Your task to perform on an android device: Show me popular videos on Youtube Image 0: 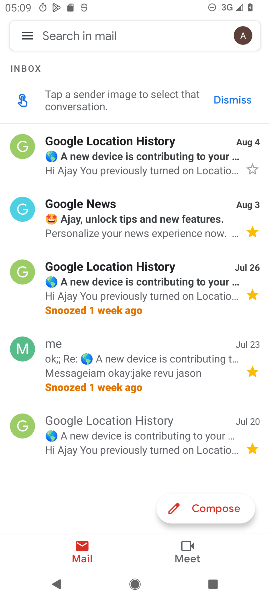
Step 0: press home button
Your task to perform on an android device: Show me popular videos on Youtube Image 1: 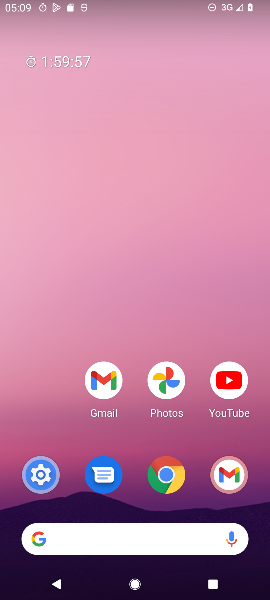
Step 1: drag from (59, 441) to (64, 253)
Your task to perform on an android device: Show me popular videos on Youtube Image 2: 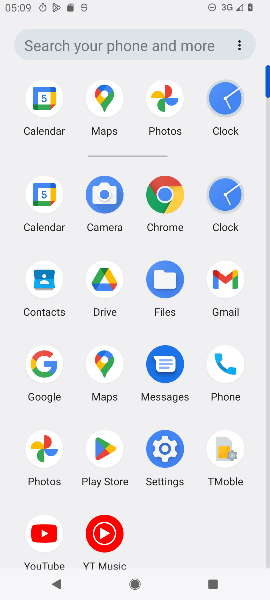
Step 2: click (41, 540)
Your task to perform on an android device: Show me popular videos on Youtube Image 3: 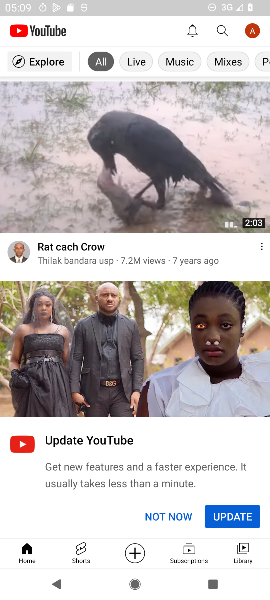
Step 3: task complete